Your task to perform on an android device: stop showing notifications on the lock screen Image 0: 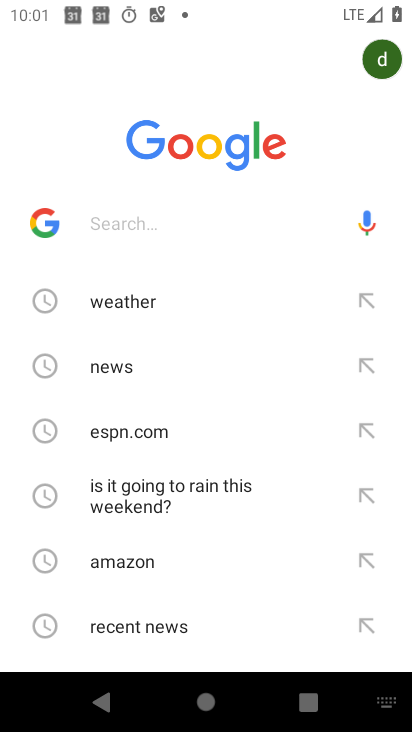
Step 0: press home button
Your task to perform on an android device: stop showing notifications on the lock screen Image 1: 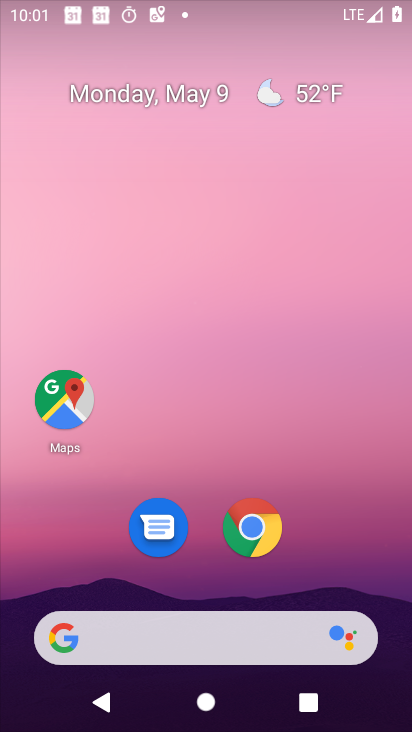
Step 1: drag from (318, 591) to (302, 178)
Your task to perform on an android device: stop showing notifications on the lock screen Image 2: 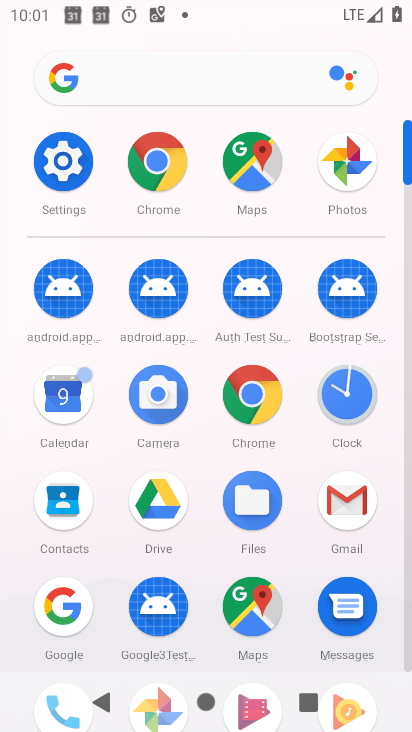
Step 2: click (68, 161)
Your task to perform on an android device: stop showing notifications on the lock screen Image 3: 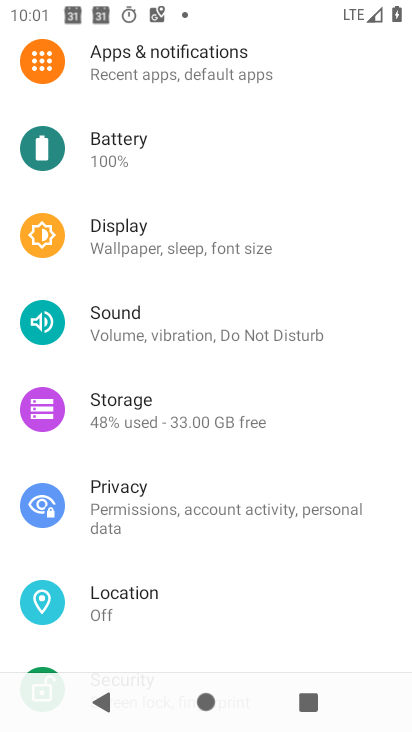
Step 3: click (236, 45)
Your task to perform on an android device: stop showing notifications on the lock screen Image 4: 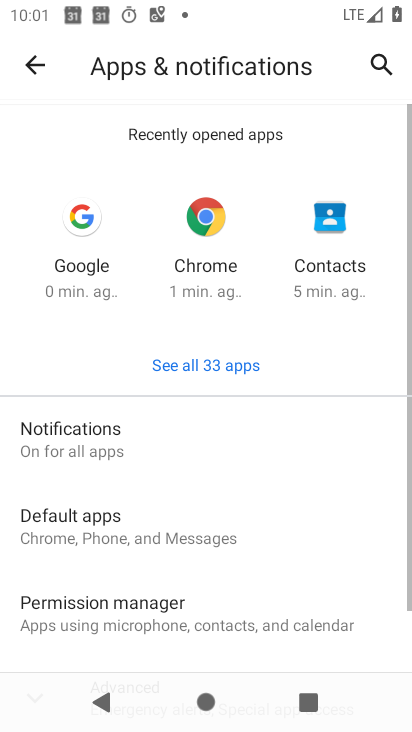
Step 4: click (83, 428)
Your task to perform on an android device: stop showing notifications on the lock screen Image 5: 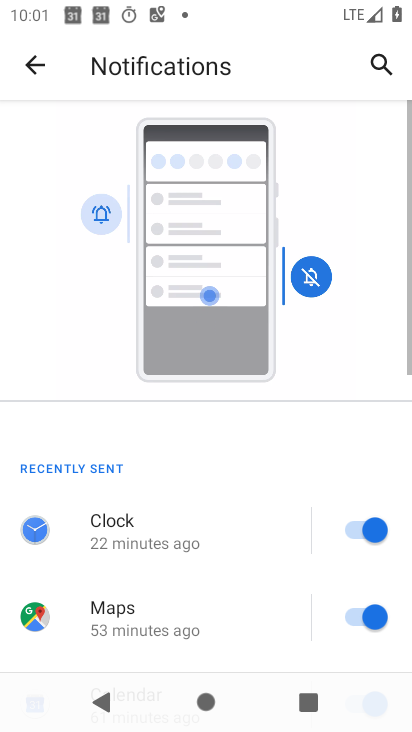
Step 5: drag from (247, 542) to (324, 86)
Your task to perform on an android device: stop showing notifications on the lock screen Image 6: 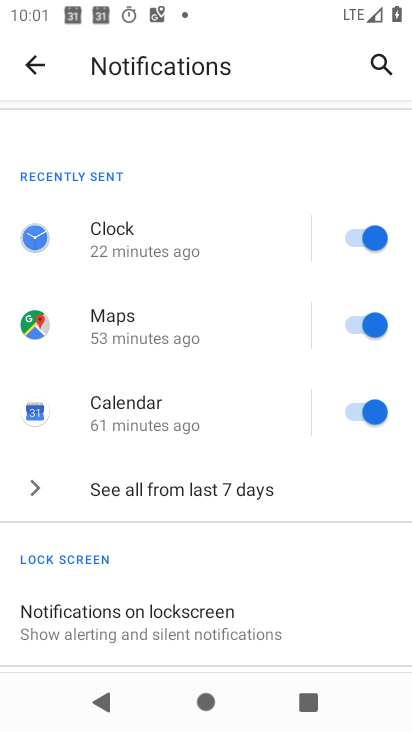
Step 6: click (175, 623)
Your task to perform on an android device: stop showing notifications on the lock screen Image 7: 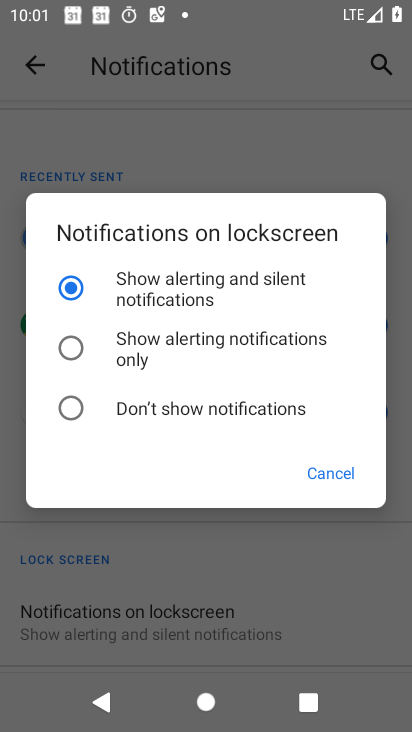
Step 7: click (133, 406)
Your task to perform on an android device: stop showing notifications on the lock screen Image 8: 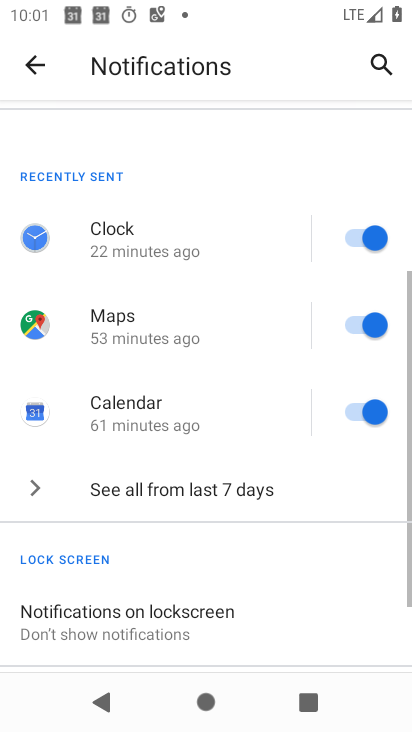
Step 8: task complete